Your task to perform on an android device: What's the weather going to be tomorrow? Image 0: 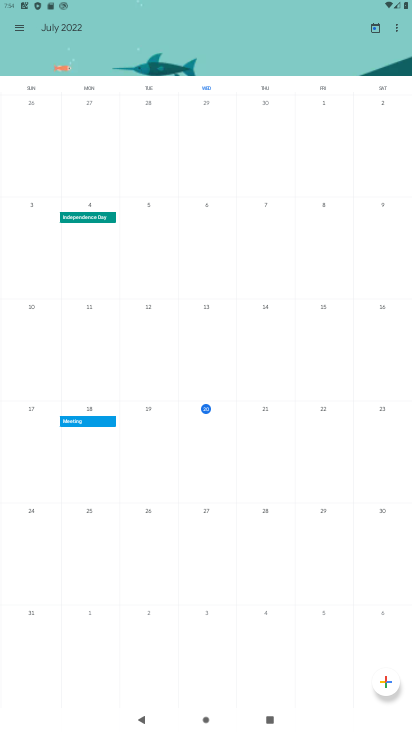
Step 0: press home button
Your task to perform on an android device: What's the weather going to be tomorrow? Image 1: 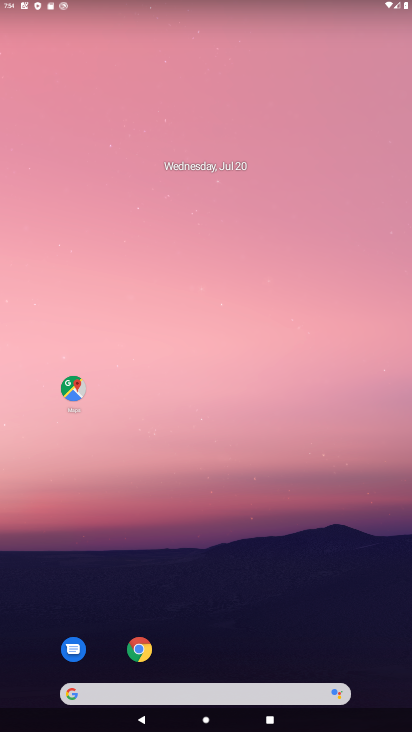
Step 1: click (210, 691)
Your task to perform on an android device: What's the weather going to be tomorrow? Image 2: 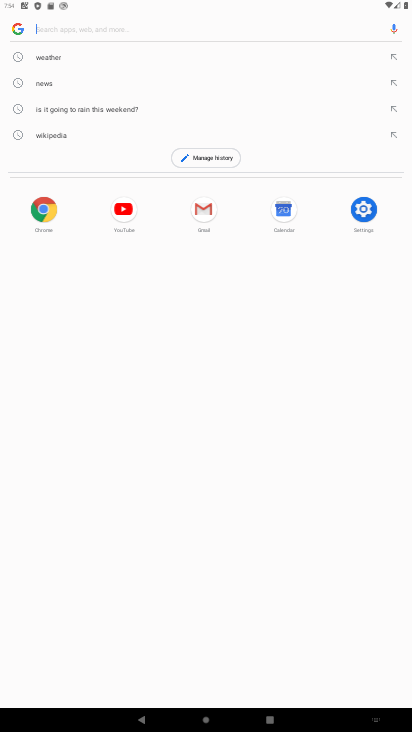
Step 2: click (61, 63)
Your task to perform on an android device: What's the weather going to be tomorrow? Image 3: 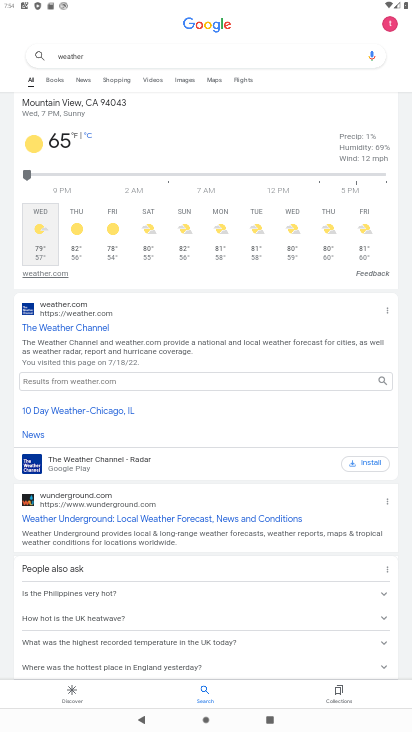
Step 3: click (87, 203)
Your task to perform on an android device: What's the weather going to be tomorrow? Image 4: 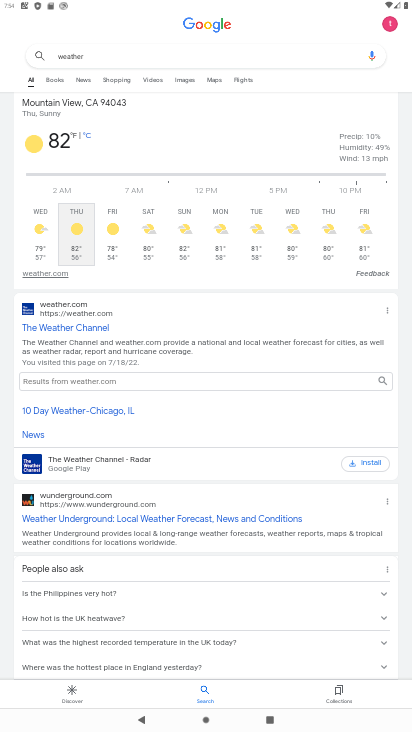
Step 4: task complete